Your task to perform on an android device: Open Google Chrome Image 0: 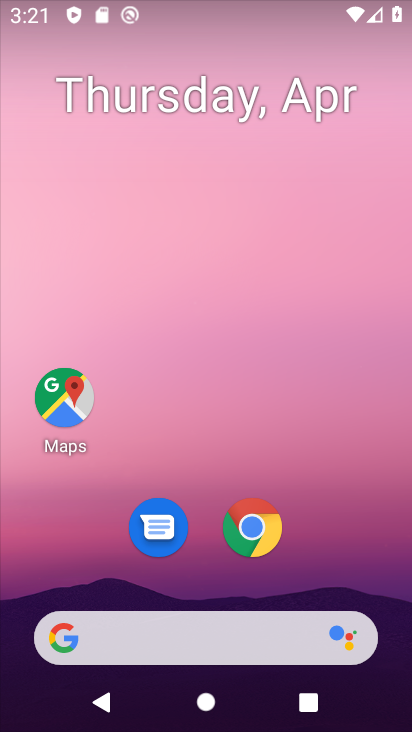
Step 0: click (265, 538)
Your task to perform on an android device: Open Google Chrome Image 1: 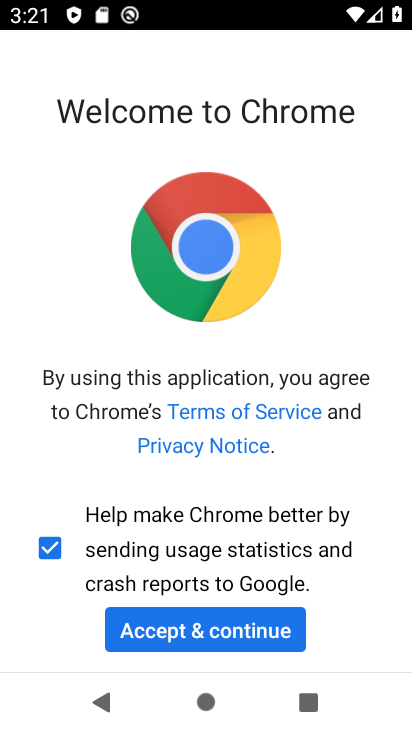
Step 1: click (238, 643)
Your task to perform on an android device: Open Google Chrome Image 2: 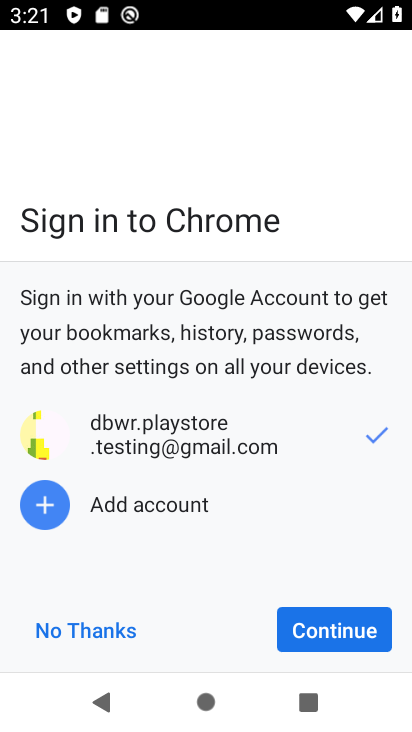
Step 2: click (323, 628)
Your task to perform on an android device: Open Google Chrome Image 3: 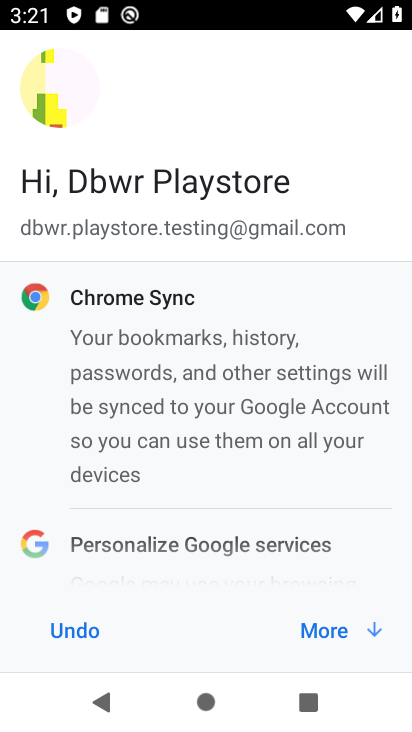
Step 3: click (323, 628)
Your task to perform on an android device: Open Google Chrome Image 4: 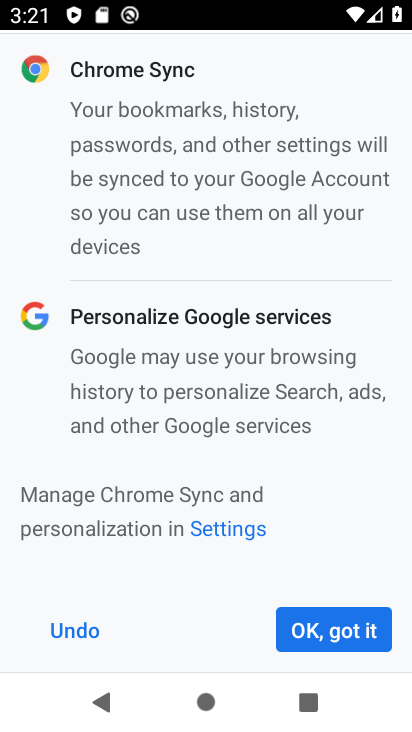
Step 4: click (323, 628)
Your task to perform on an android device: Open Google Chrome Image 5: 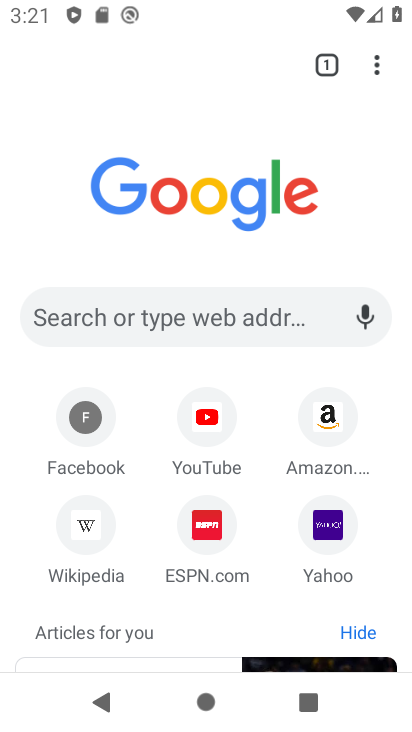
Step 5: task complete